Your task to perform on an android device: Go to ESPN.com Image 0: 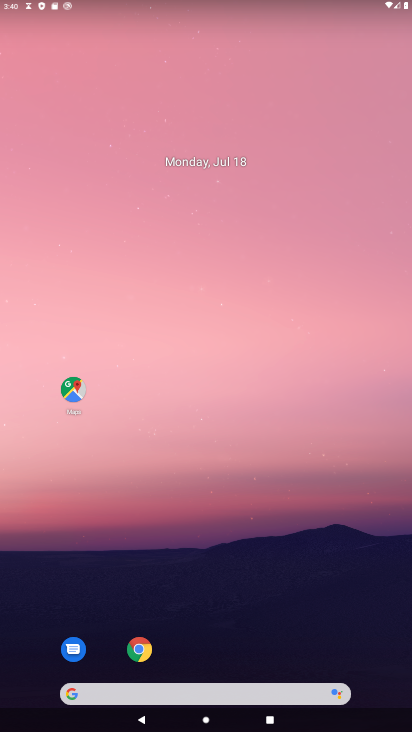
Step 0: press home button
Your task to perform on an android device: Go to ESPN.com Image 1: 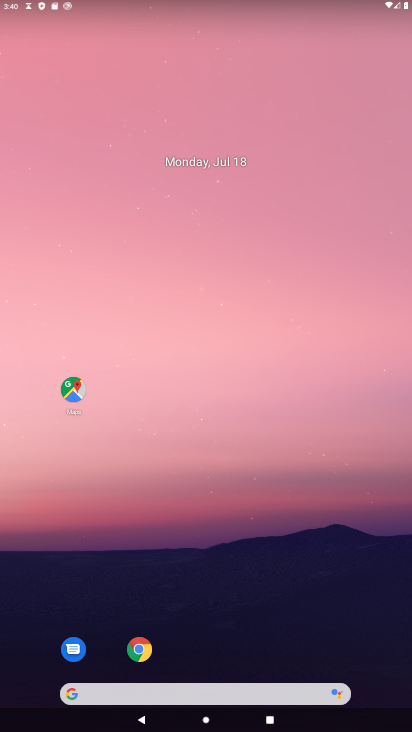
Step 1: click (65, 695)
Your task to perform on an android device: Go to ESPN.com Image 2: 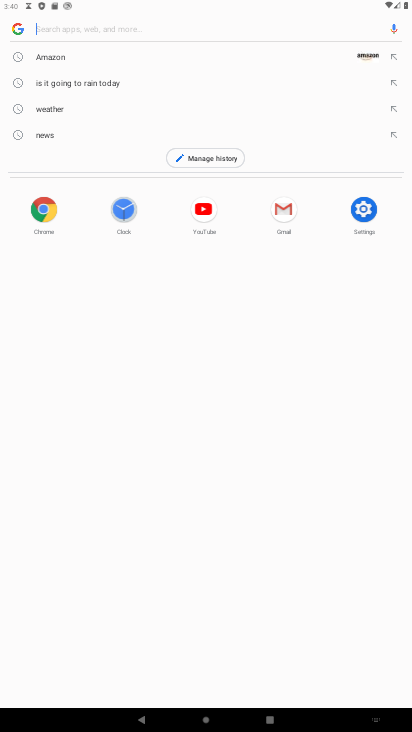
Step 2: type "ESPN.com"
Your task to perform on an android device: Go to ESPN.com Image 3: 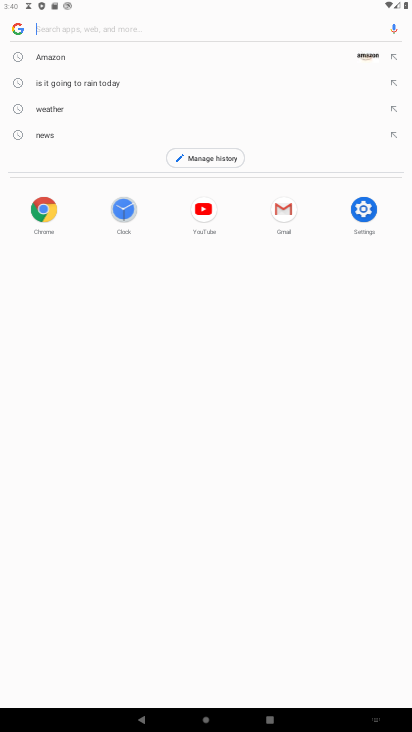
Step 3: click (57, 23)
Your task to perform on an android device: Go to ESPN.com Image 4: 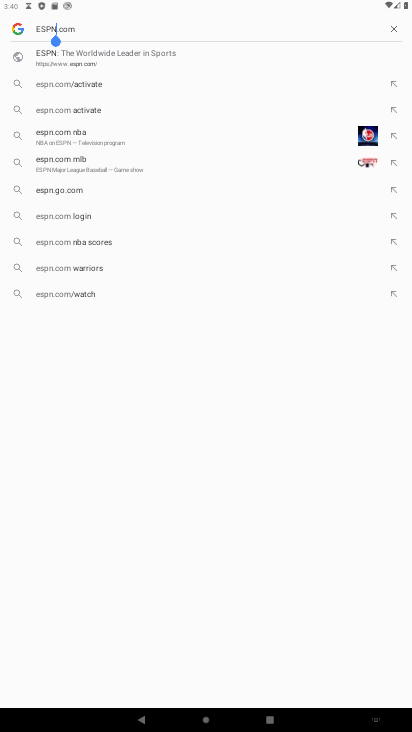
Step 4: press enter
Your task to perform on an android device: Go to ESPN.com Image 5: 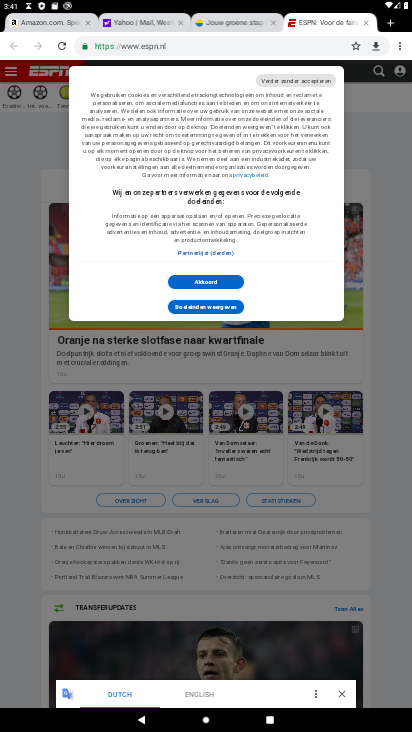
Step 5: click (199, 276)
Your task to perform on an android device: Go to ESPN.com Image 6: 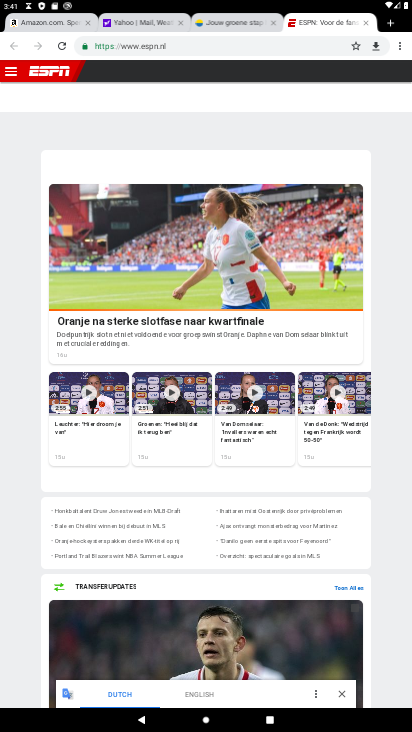
Step 6: task complete